Your task to perform on an android device: What's on my calendar today? Image 0: 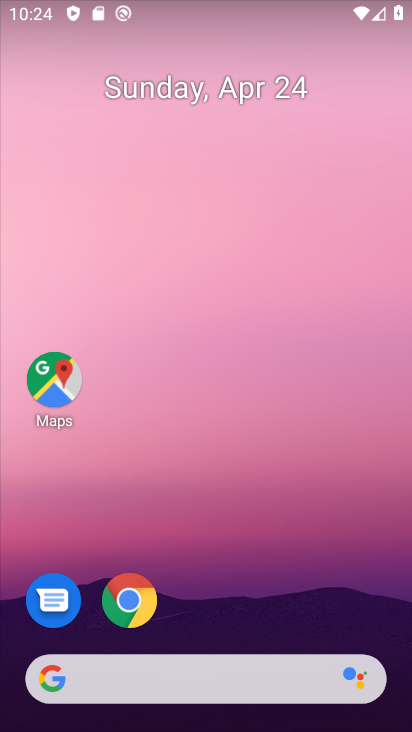
Step 0: drag from (218, 595) to (137, 94)
Your task to perform on an android device: What's on my calendar today? Image 1: 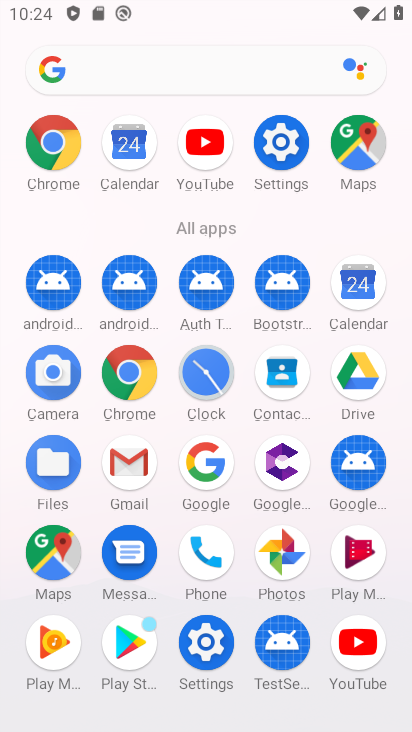
Step 1: click (348, 292)
Your task to perform on an android device: What's on my calendar today? Image 2: 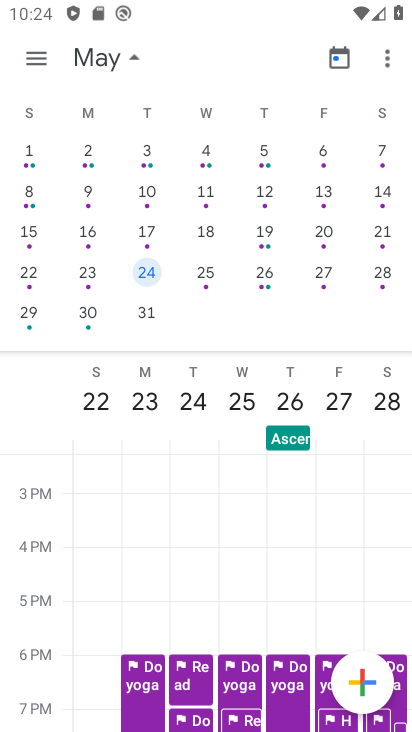
Step 2: drag from (26, 201) to (403, 308)
Your task to perform on an android device: What's on my calendar today? Image 3: 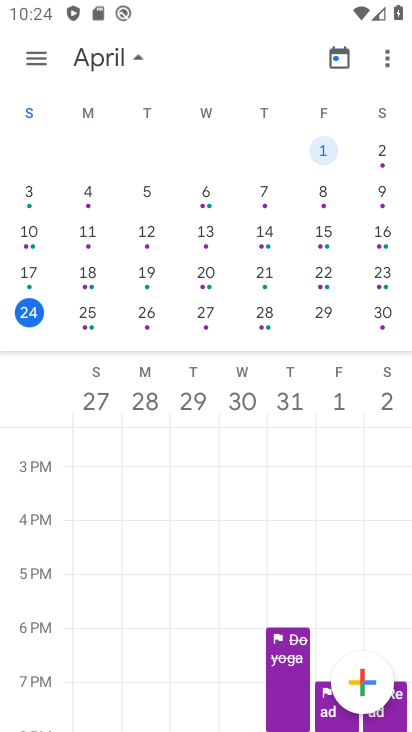
Step 3: click (29, 315)
Your task to perform on an android device: What's on my calendar today? Image 4: 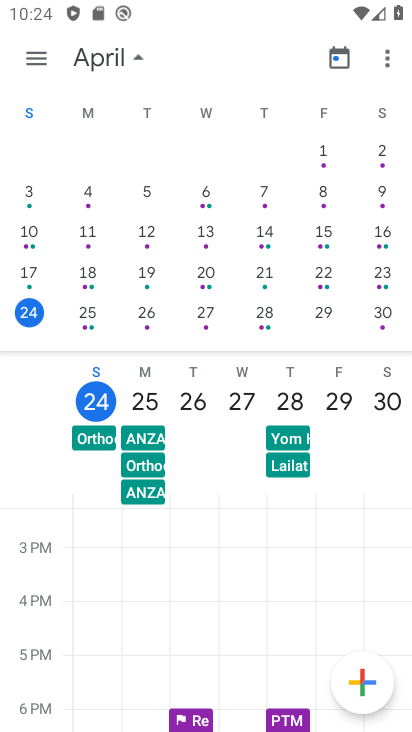
Step 4: click (29, 315)
Your task to perform on an android device: What's on my calendar today? Image 5: 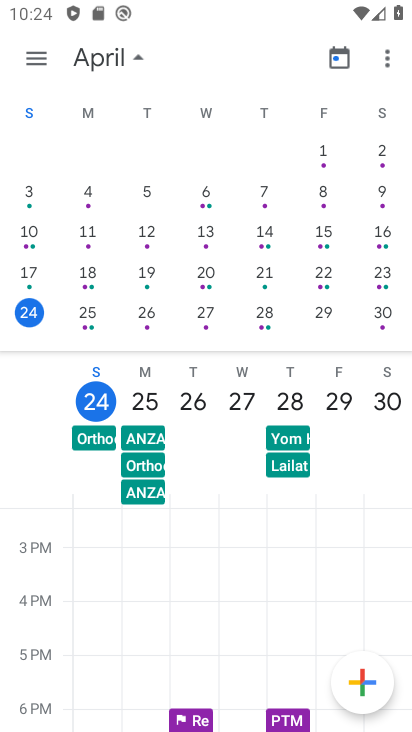
Step 5: click (31, 60)
Your task to perform on an android device: What's on my calendar today? Image 6: 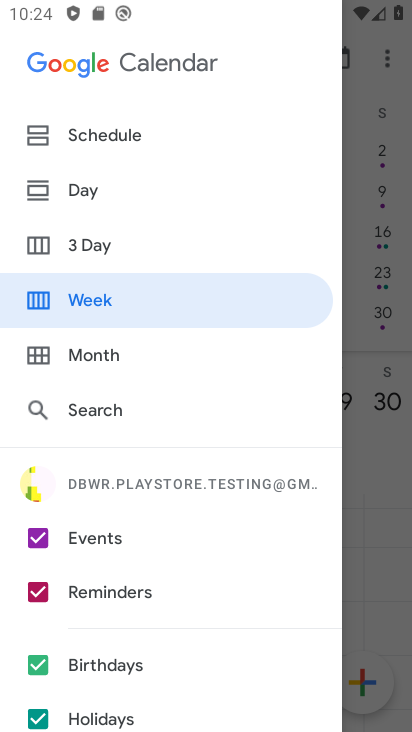
Step 6: click (77, 186)
Your task to perform on an android device: What's on my calendar today? Image 7: 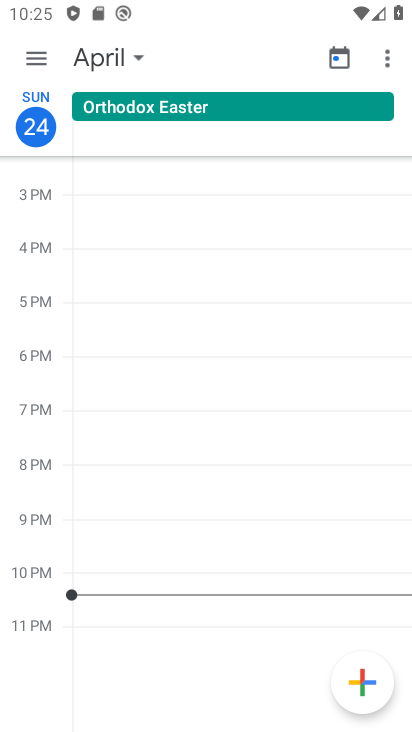
Step 7: task complete